Your task to perform on an android device: Clear the cart on amazon.com. Search for "acer predator" on amazon.com, select the first entry, add it to the cart, then select checkout. Image 0: 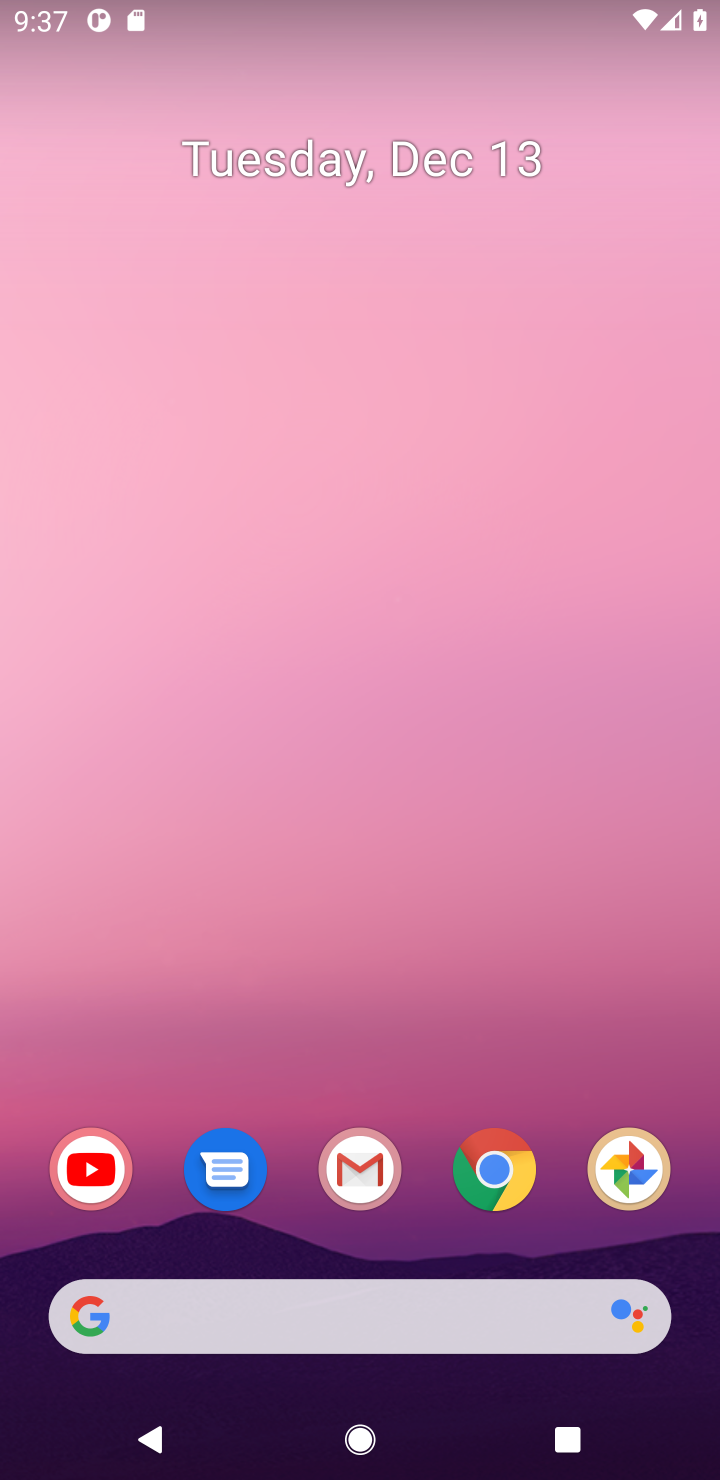
Step 0: click (470, 1204)
Your task to perform on an android device: Clear the cart on amazon.com. Search for "acer predator" on amazon.com, select the first entry, add it to the cart, then select checkout. Image 1: 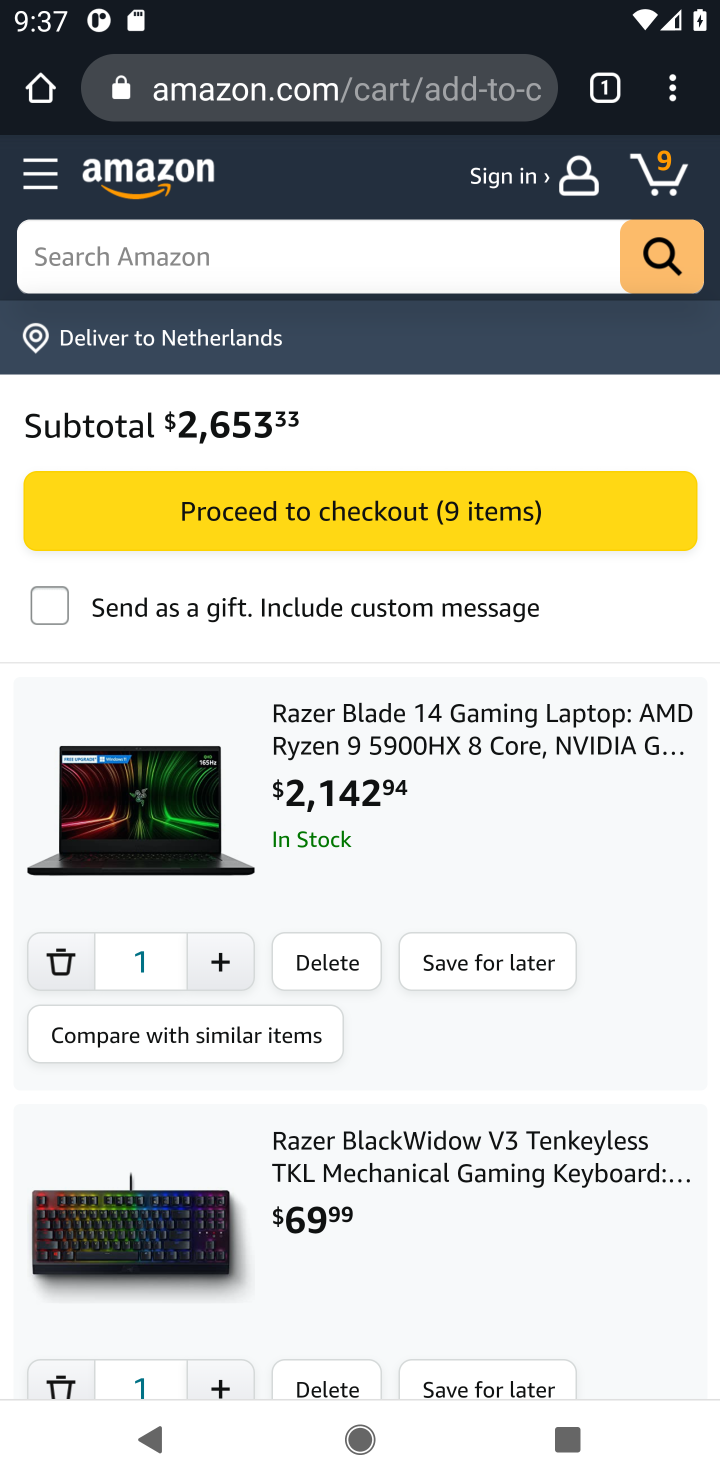
Step 1: click (235, 266)
Your task to perform on an android device: Clear the cart on amazon.com. Search for "acer predator" on amazon.com, select the first entry, add it to the cart, then select checkout. Image 2: 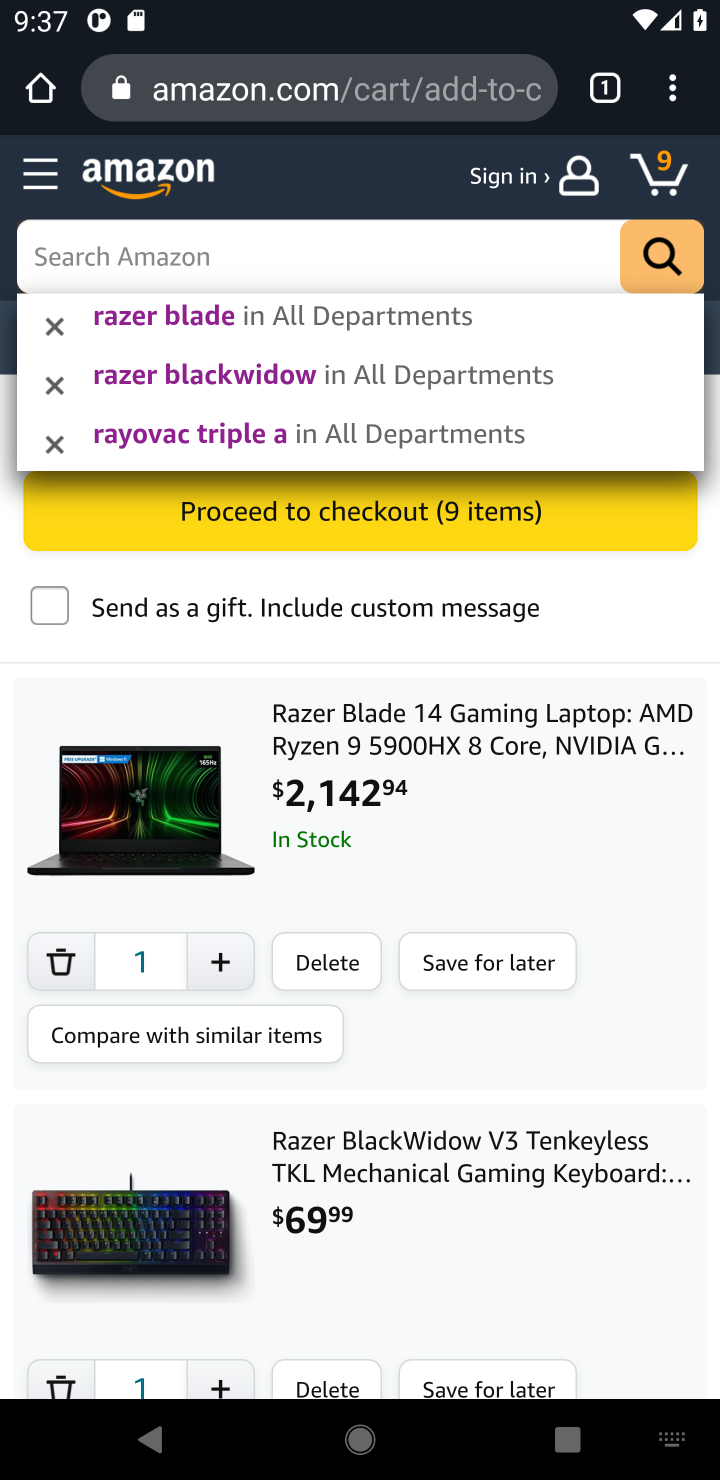
Step 2: type "acer predator"
Your task to perform on an android device: Clear the cart on amazon.com. Search for "acer predator" on amazon.com, select the first entry, add it to the cart, then select checkout. Image 3: 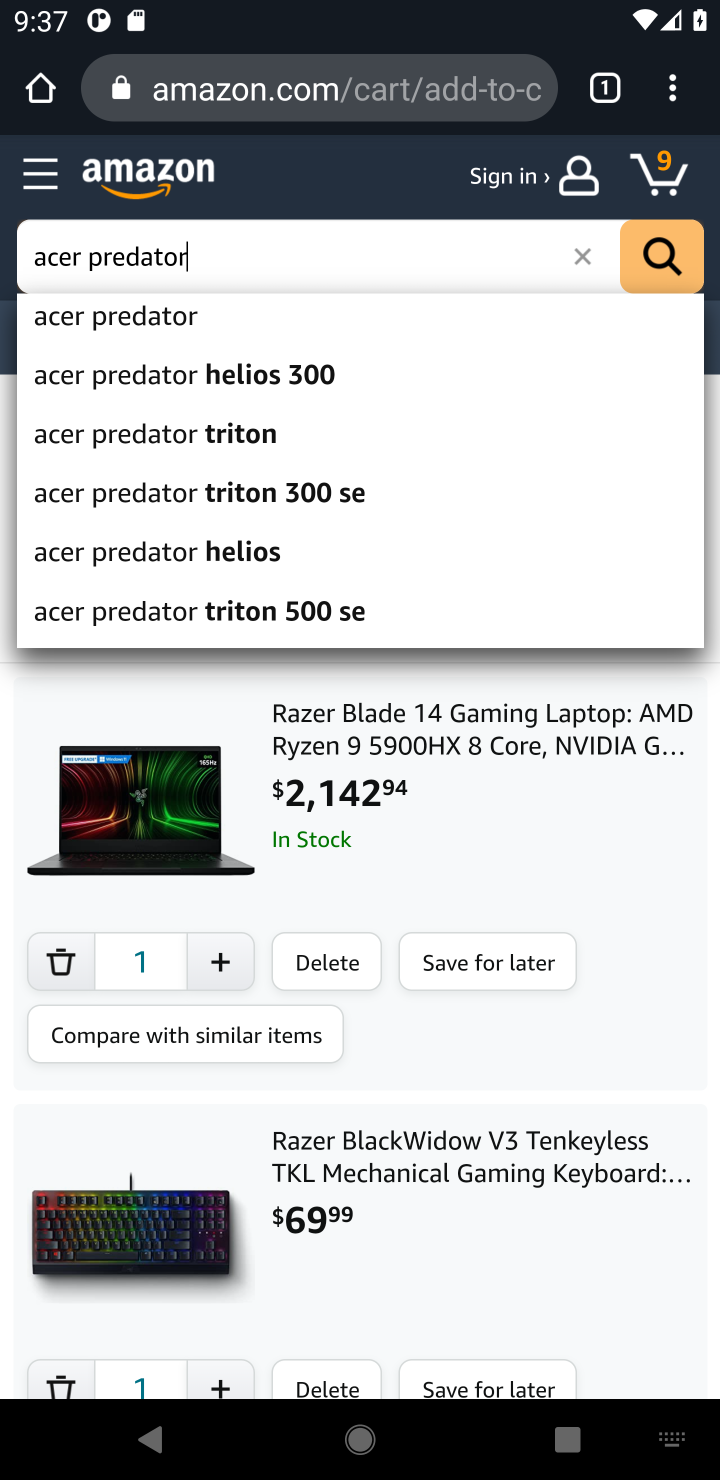
Step 3: click (639, 271)
Your task to perform on an android device: Clear the cart on amazon.com. Search for "acer predator" on amazon.com, select the first entry, add it to the cart, then select checkout. Image 4: 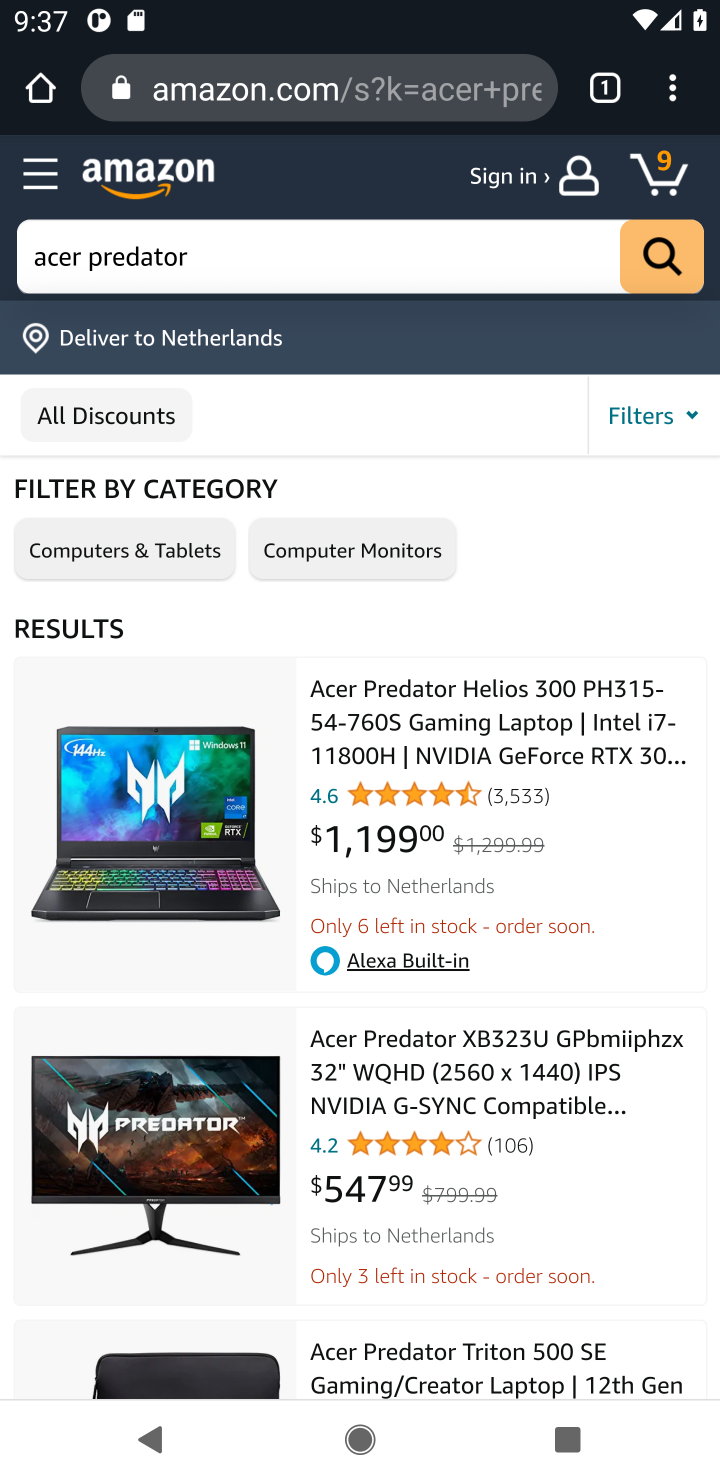
Step 4: click (251, 781)
Your task to perform on an android device: Clear the cart on amazon.com. Search for "acer predator" on amazon.com, select the first entry, add it to the cart, then select checkout. Image 5: 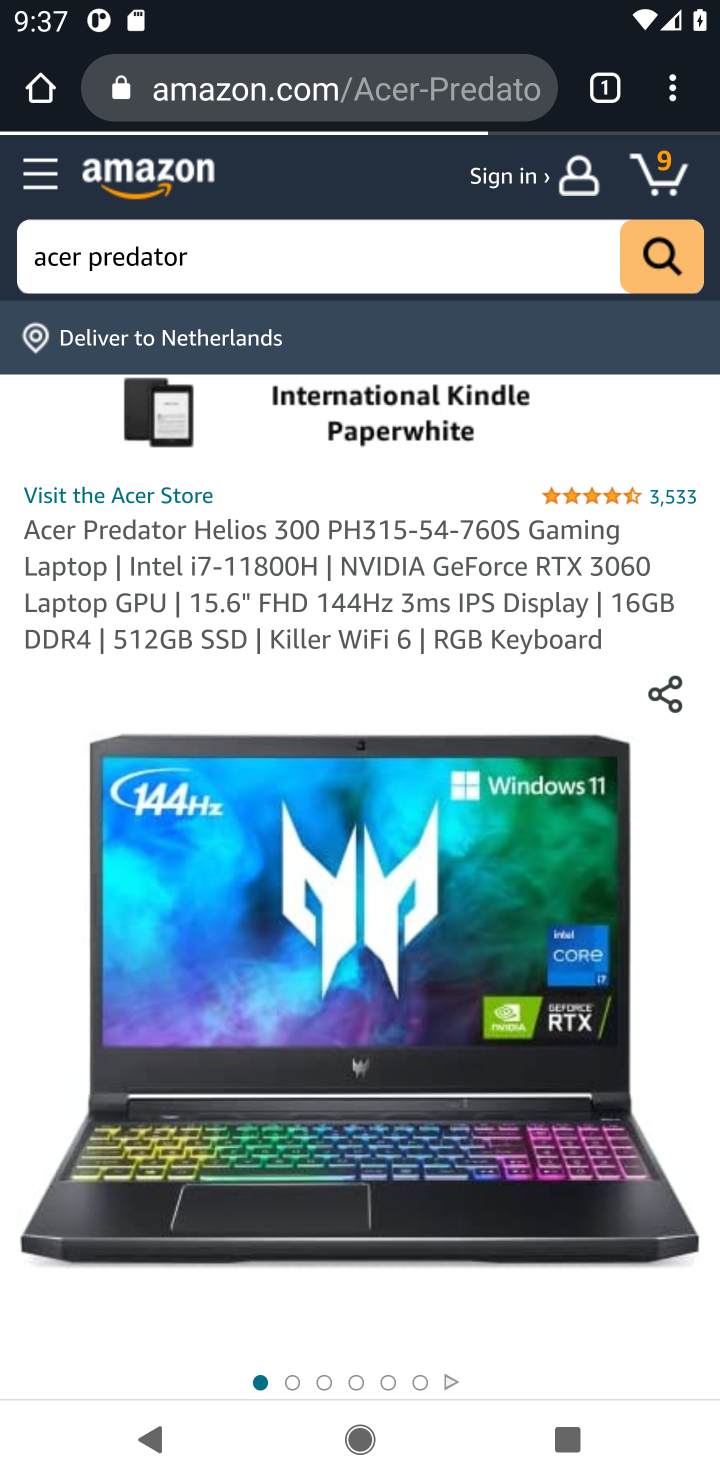
Step 5: drag from (391, 1215) to (342, 518)
Your task to perform on an android device: Clear the cart on amazon.com. Search for "acer predator" on amazon.com, select the first entry, add it to the cart, then select checkout. Image 6: 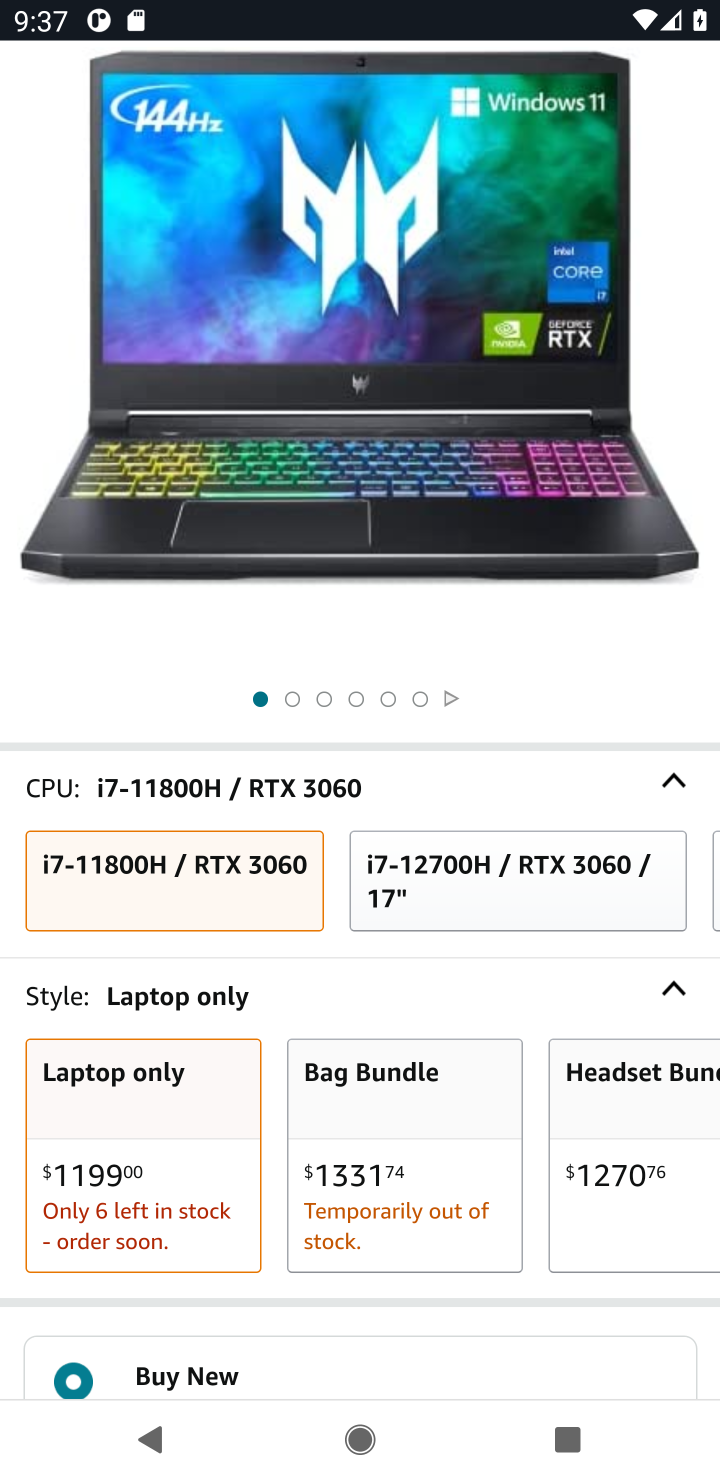
Step 6: drag from (477, 972) to (439, 505)
Your task to perform on an android device: Clear the cart on amazon.com. Search for "acer predator" on amazon.com, select the first entry, add it to the cart, then select checkout. Image 7: 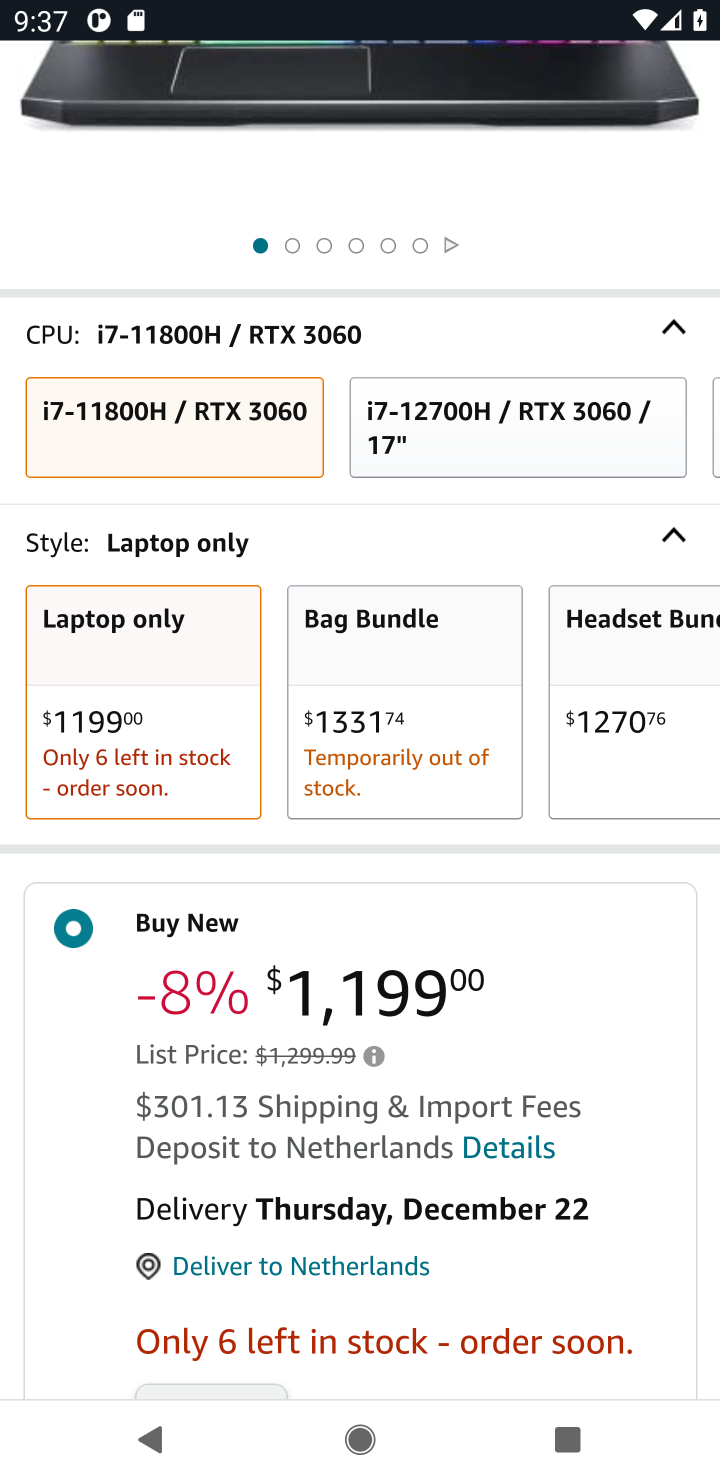
Step 7: drag from (481, 1138) to (429, 412)
Your task to perform on an android device: Clear the cart on amazon.com. Search for "acer predator" on amazon.com, select the first entry, add it to the cart, then select checkout. Image 8: 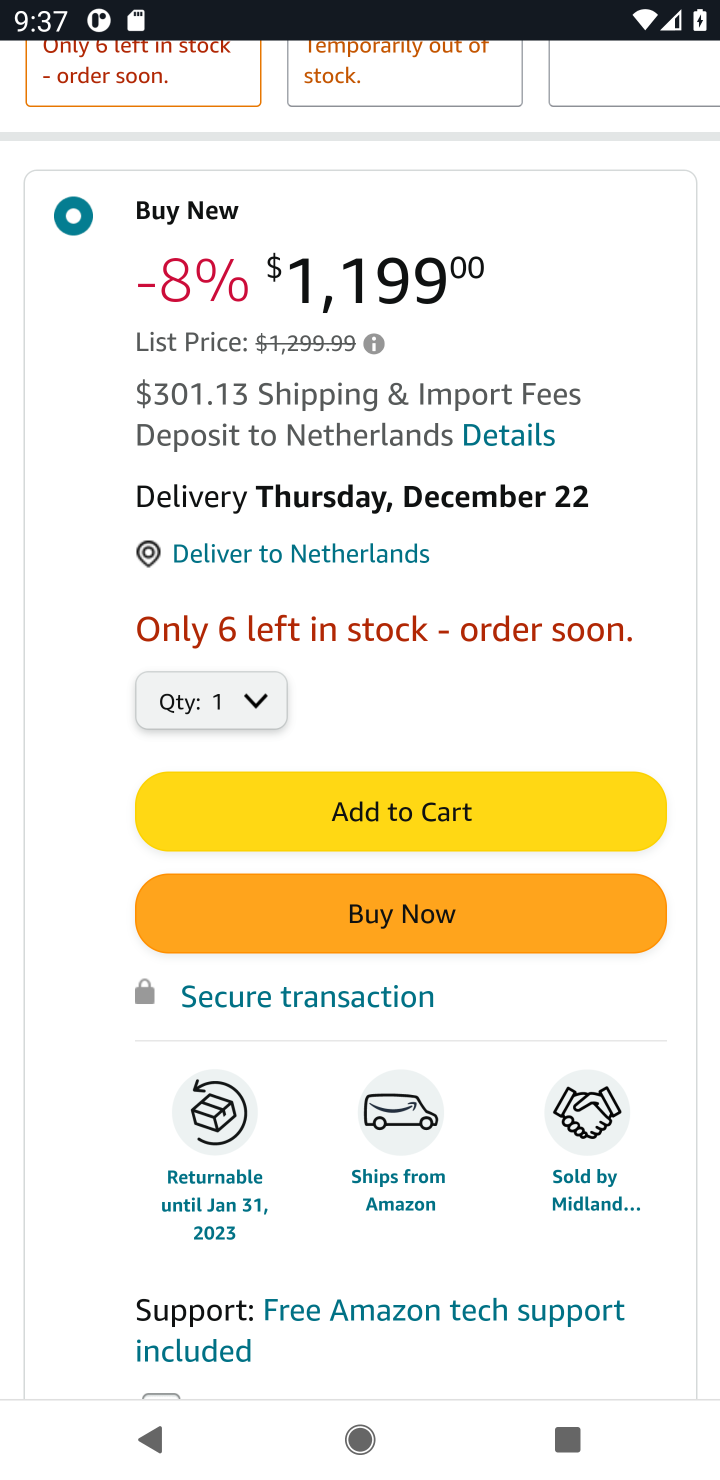
Step 8: click (476, 797)
Your task to perform on an android device: Clear the cart on amazon.com. Search for "acer predator" on amazon.com, select the first entry, add it to the cart, then select checkout. Image 9: 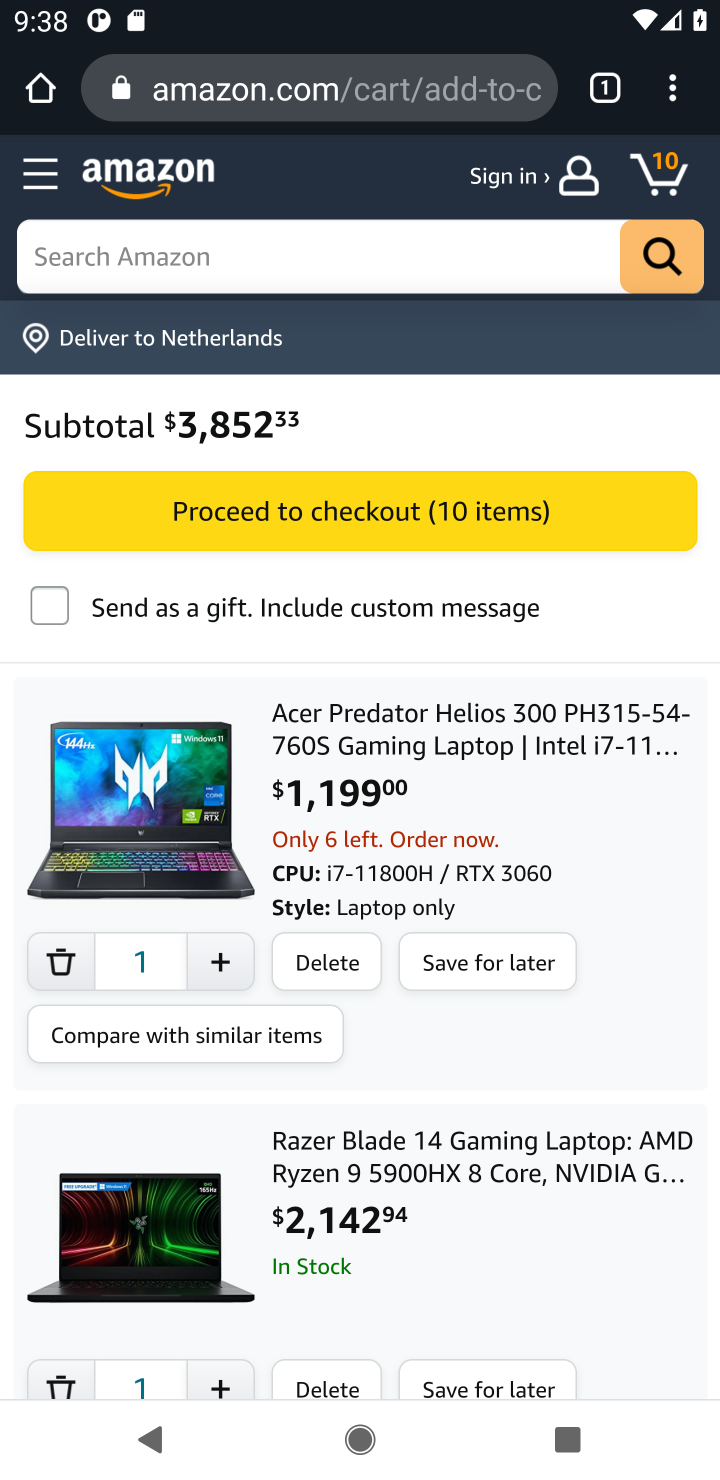
Step 9: task complete